Your task to perform on an android device: add a contact in the contacts app Image 0: 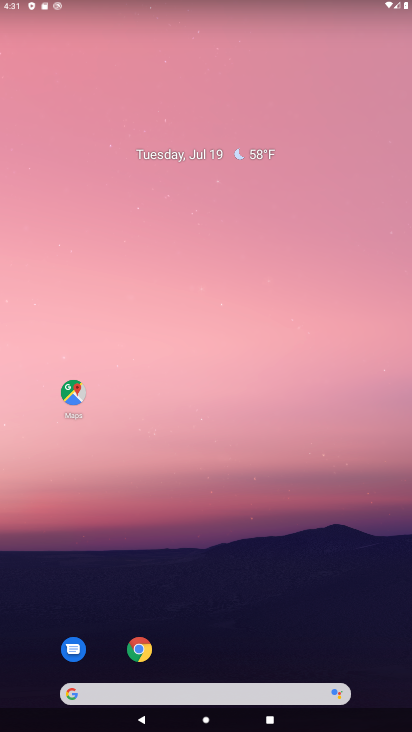
Step 0: drag from (303, 563) to (238, 90)
Your task to perform on an android device: add a contact in the contacts app Image 1: 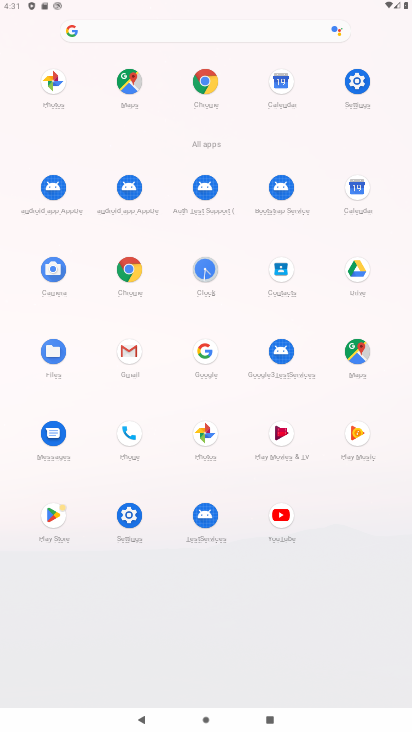
Step 1: click (286, 274)
Your task to perform on an android device: add a contact in the contacts app Image 2: 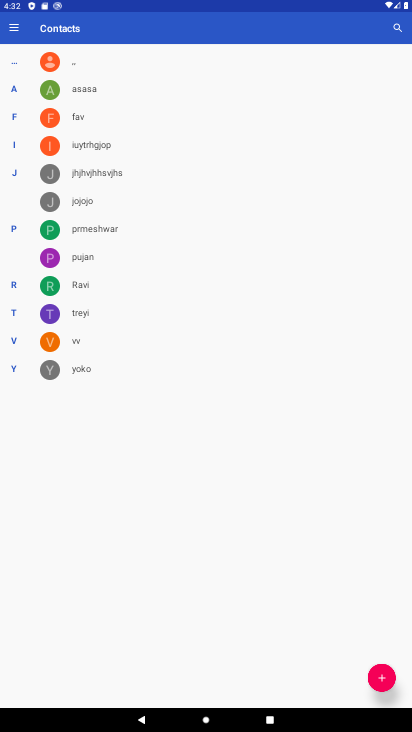
Step 2: click (376, 668)
Your task to perform on an android device: add a contact in the contacts app Image 3: 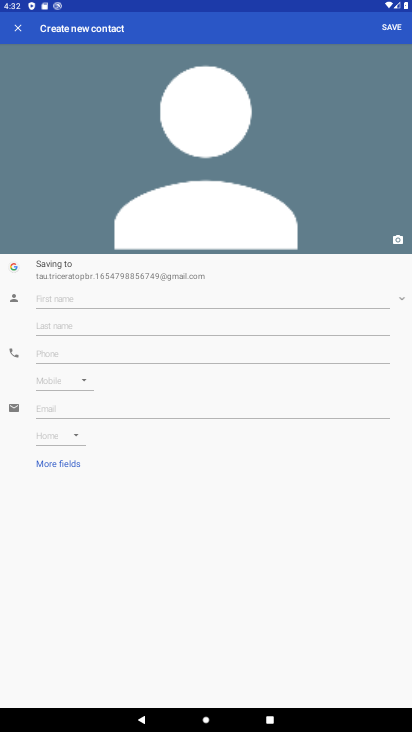
Step 3: click (81, 311)
Your task to perform on an android device: add a contact in the contacts app Image 4: 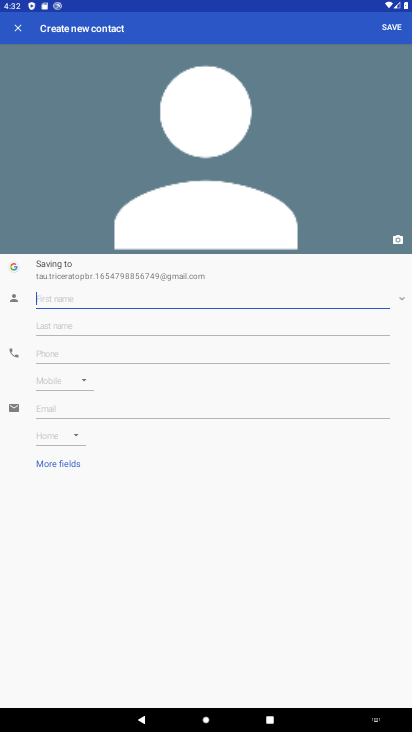
Step 4: click (81, 304)
Your task to perform on an android device: add a contact in the contacts app Image 5: 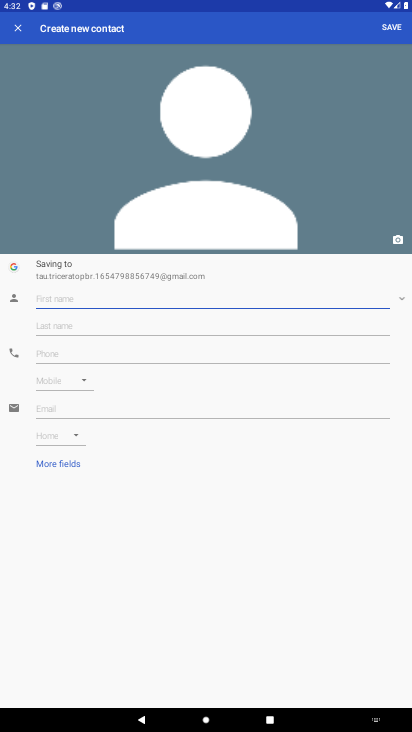
Step 5: type "ghold"
Your task to perform on an android device: add a contact in the contacts app Image 6: 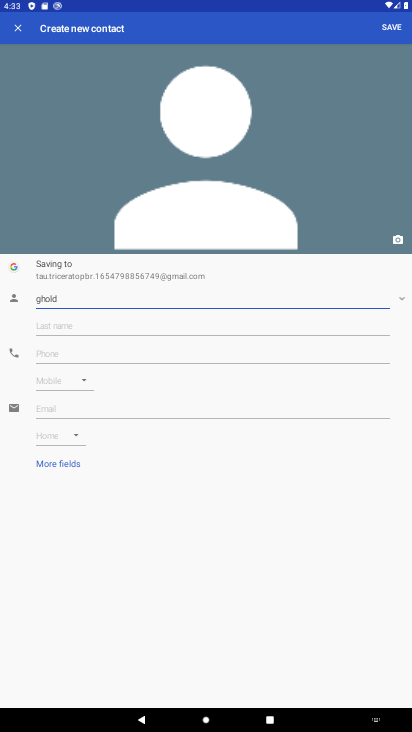
Step 6: click (395, 24)
Your task to perform on an android device: add a contact in the contacts app Image 7: 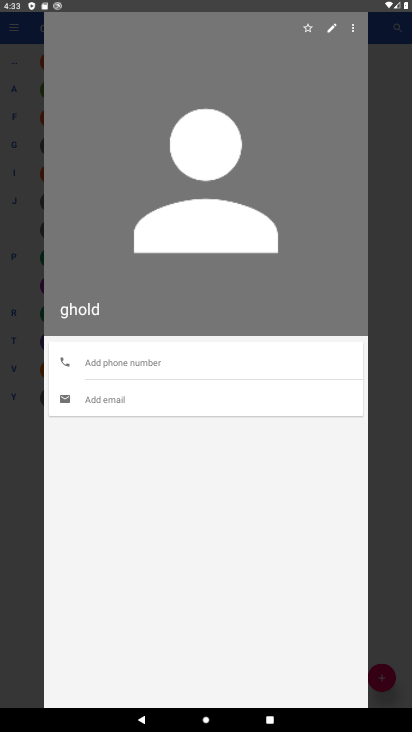
Step 7: task complete